Your task to perform on an android device: Search for the best 4K TV Image 0: 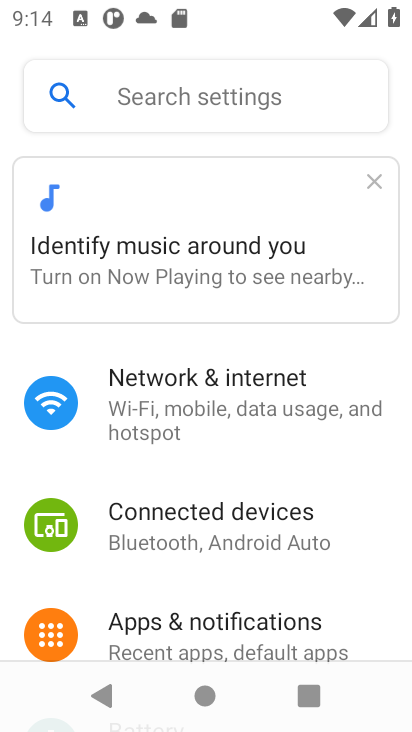
Step 0: press home button
Your task to perform on an android device: Search for the best 4K TV Image 1: 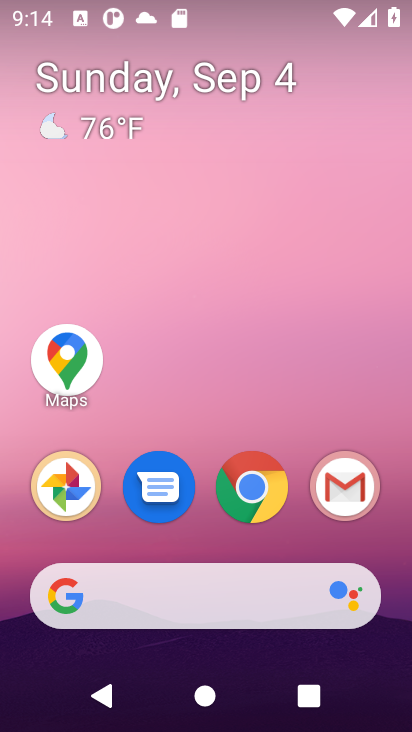
Step 1: click (208, 572)
Your task to perform on an android device: Search for the best 4K TV Image 2: 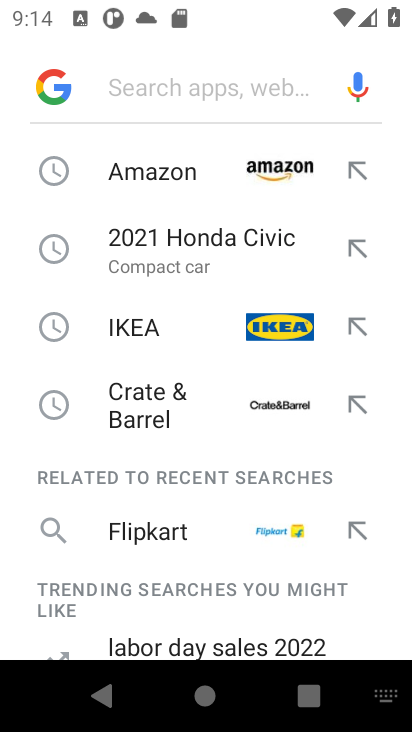
Step 2: type "4K TV"
Your task to perform on an android device: Search for the best 4K TV Image 3: 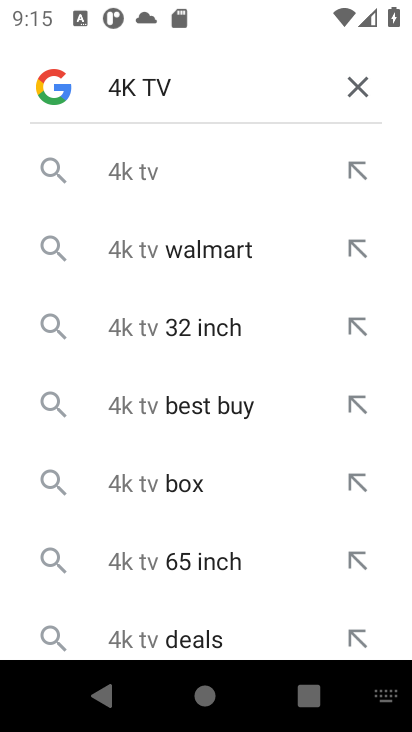
Step 3: click (159, 171)
Your task to perform on an android device: Search for the best 4K TV Image 4: 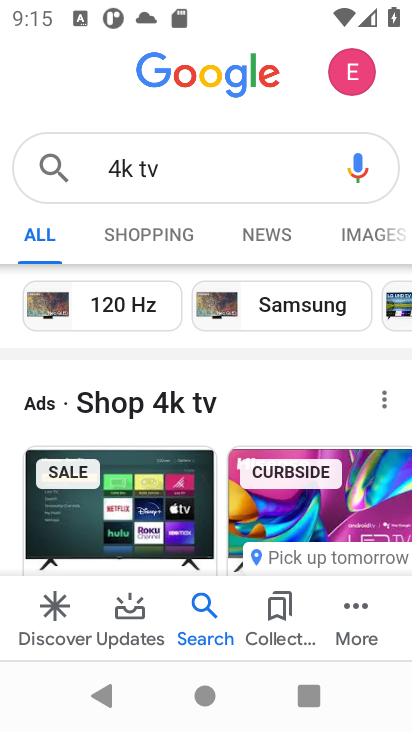
Step 4: drag from (259, 422) to (308, 100)
Your task to perform on an android device: Search for the best 4K TV Image 5: 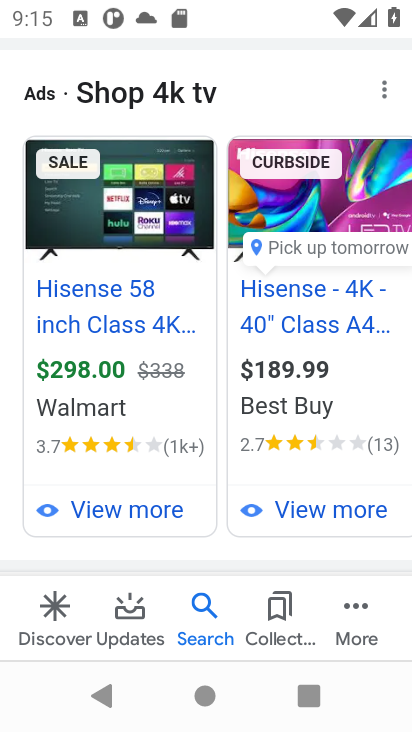
Step 5: drag from (242, 250) to (232, 181)
Your task to perform on an android device: Search for the best 4K TV Image 6: 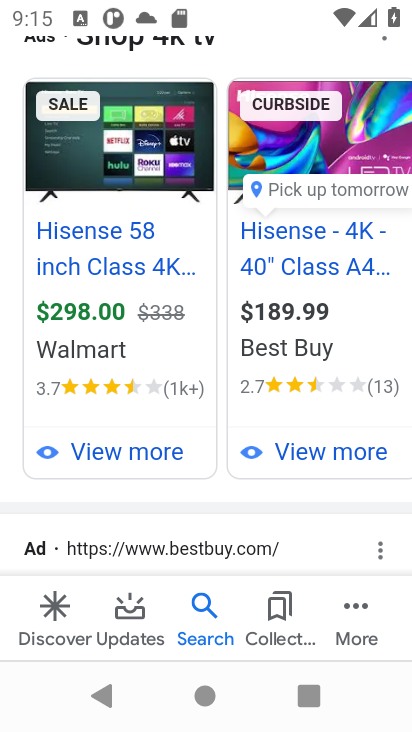
Step 6: drag from (228, 415) to (239, 218)
Your task to perform on an android device: Search for the best 4K TV Image 7: 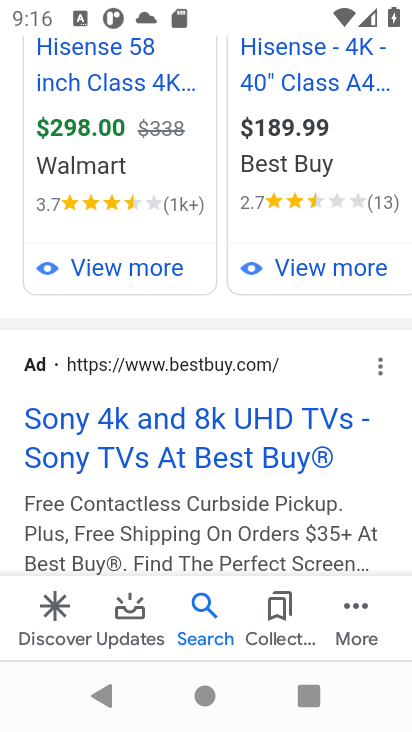
Step 7: click (166, 438)
Your task to perform on an android device: Search for the best 4K TV Image 8: 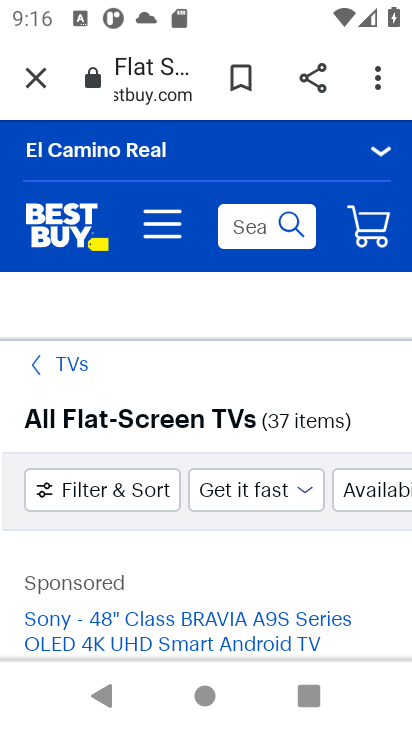
Step 8: task complete